Your task to perform on an android device: Do I have any events tomorrow? Image 0: 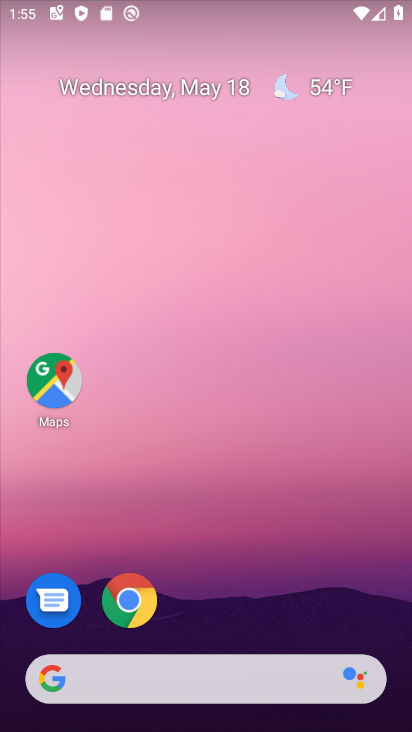
Step 0: click (160, 86)
Your task to perform on an android device: Do I have any events tomorrow? Image 1: 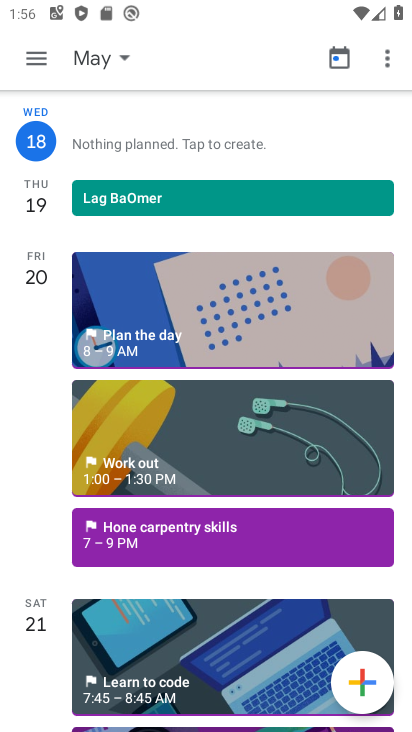
Step 1: task complete